Your task to perform on an android device: Do I have any events today? Image 0: 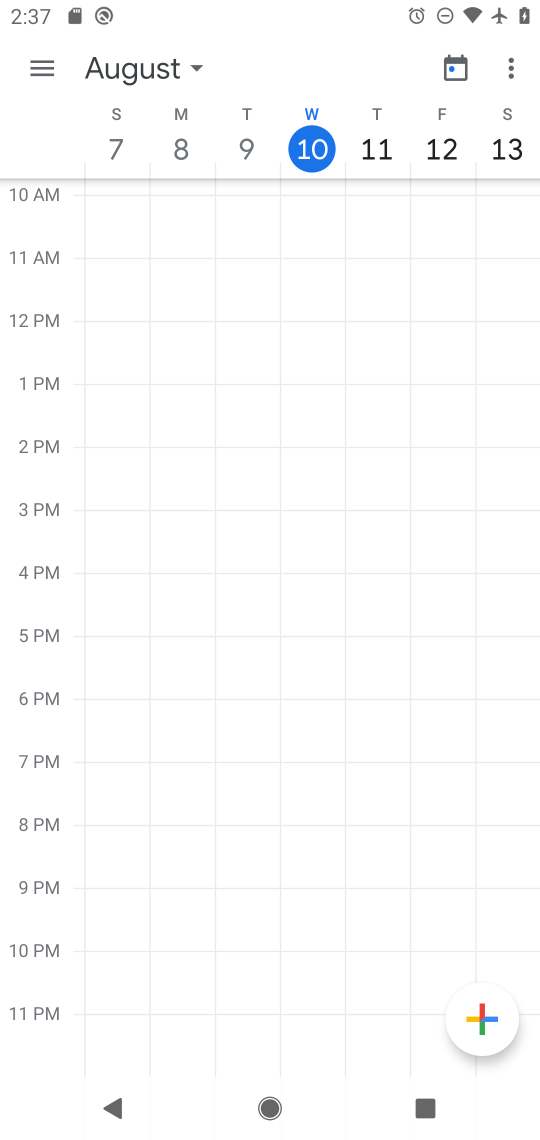
Step 0: drag from (353, 940) to (399, 262)
Your task to perform on an android device: Do I have any events today? Image 1: 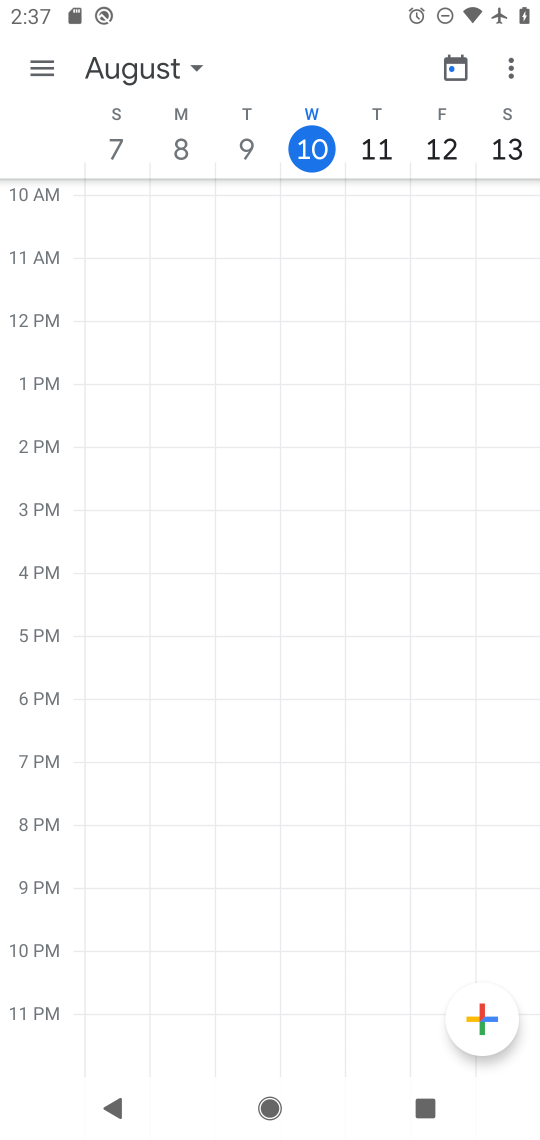
Step 1: task complete